Your task to perform on an android device: delete the emails in spam in the gmail app Image 0: 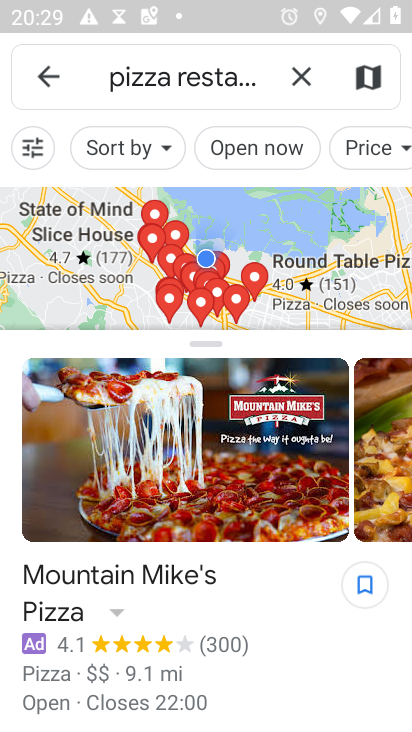
Step 0: press home button
Your task to perform on an android device: delete the emails in spam in the gmail app Image 1: 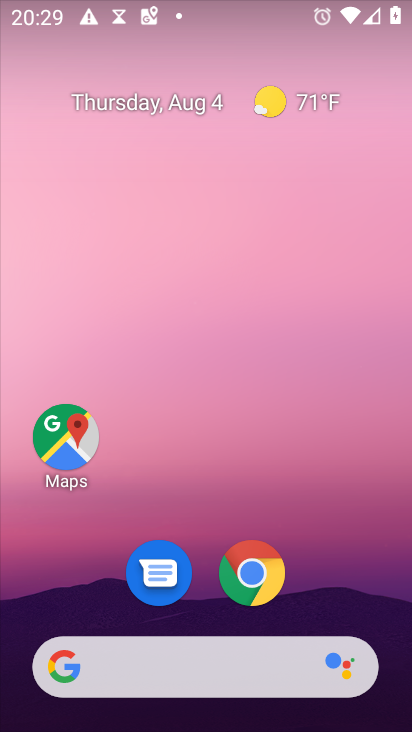
Step 1: drag from (148, 644) to (97, 139)
Your task to perform on an android device: delete the emails in spam in the gmail app Image 2: 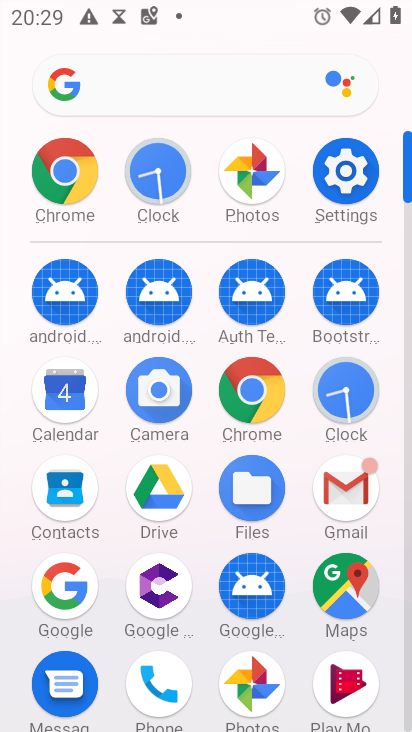
Step 2: click (337, 492)
Your task to perform on an android device: delete the emails in spam in the gmail app Image 3: 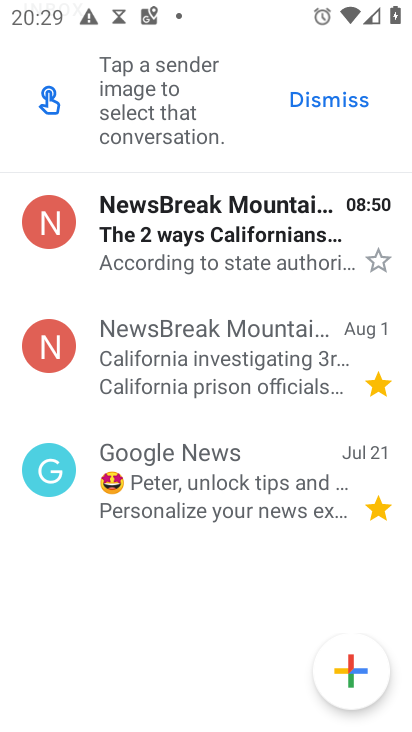
Step 3: drag from (109, 198) to (163, 512)
Your task to perform on an android device: delete the emails in spam in the gmail app Image 4: 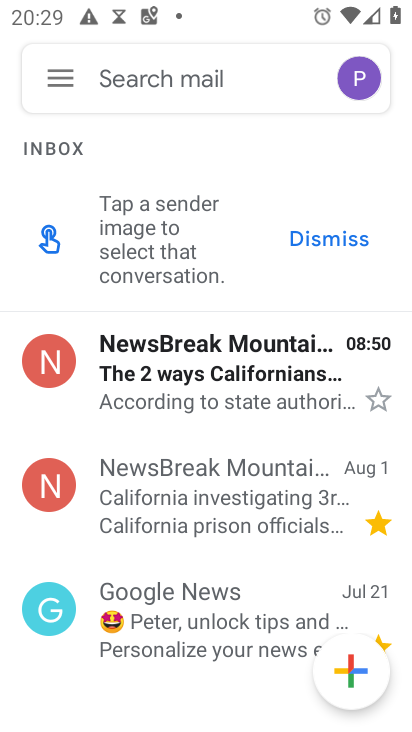
Step 4: click (64, 78)
Your task to perform on an android device: delete the emails in spam in the gmail app Image 5: 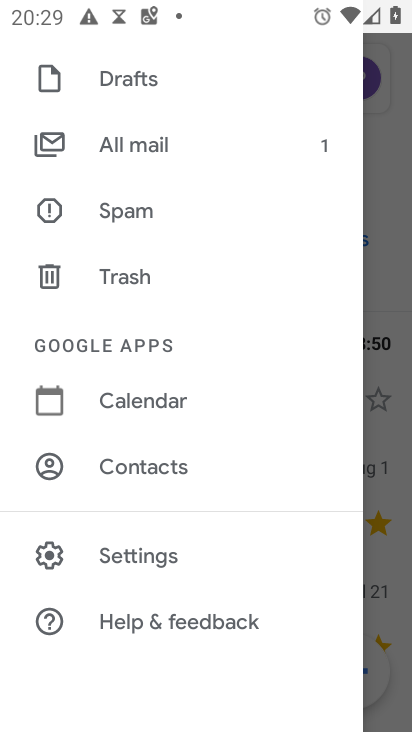
Step 5: click (130, 225)
Your task to perform on an android device: delete the emails in spam in the gmail app Image 6: 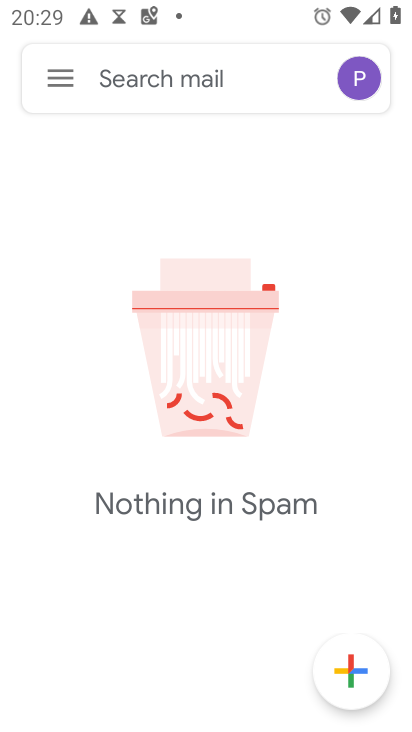
Step 6: task complete